Your task to perform on an android device: Turn on the flashlight Image 0: 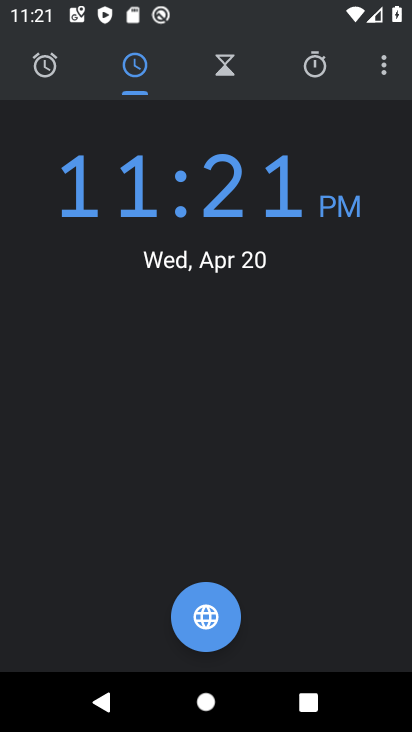
Step 0: press home button
Your task to perform on an android device: Turn on the flashlight Image 1: 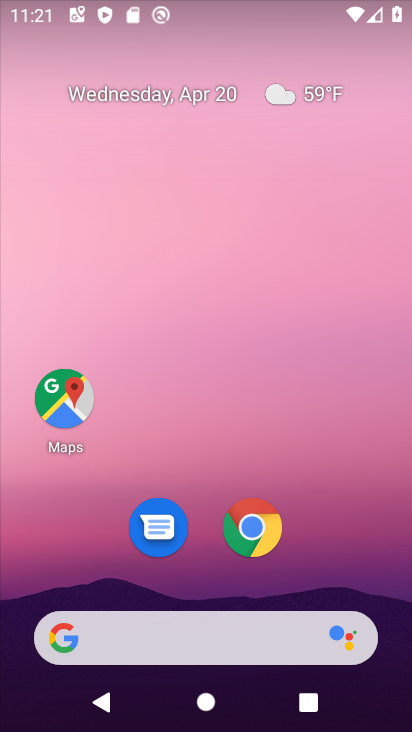
Step 1: drag from (380, 563) to (370, 170)
Your task to perform on an android device: Turn on the flashlight Image 2: 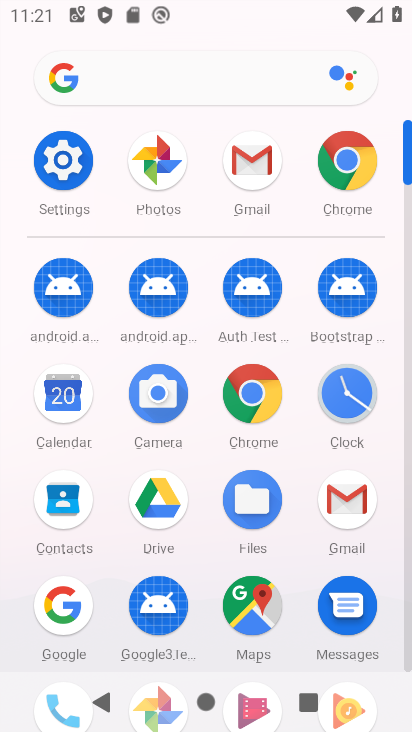
Step 2: click (62, 180)
Your task to perform on an android device: Turn on the flashlight Image 3: 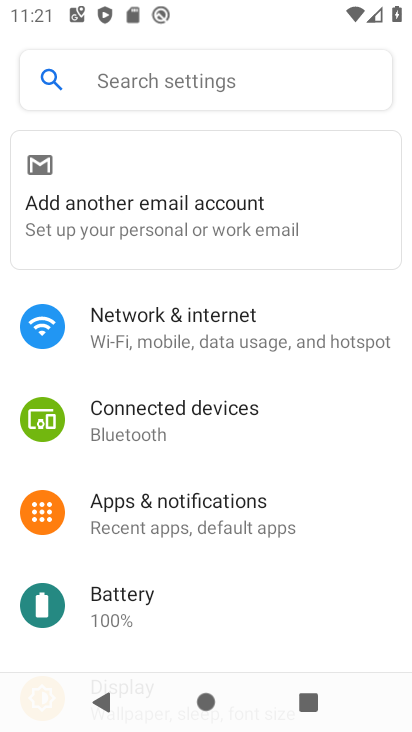
Step 3: click (247, 80)
Your task to perform on an android device: Turn on the flashlight Image 4: 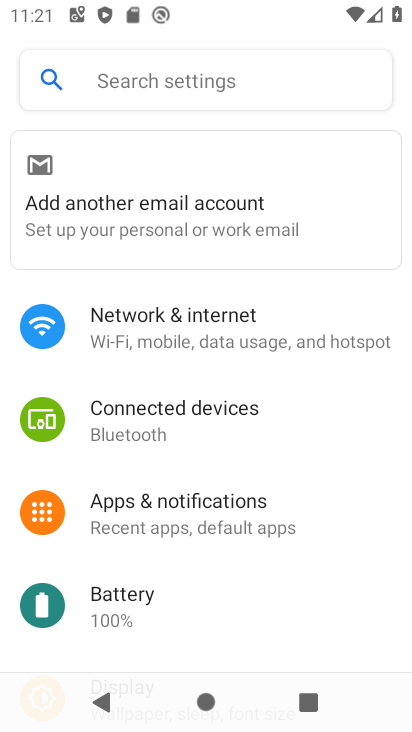
Step 4: type ""
Your task to perform on an android device: Turn on the flashlight Image 5: 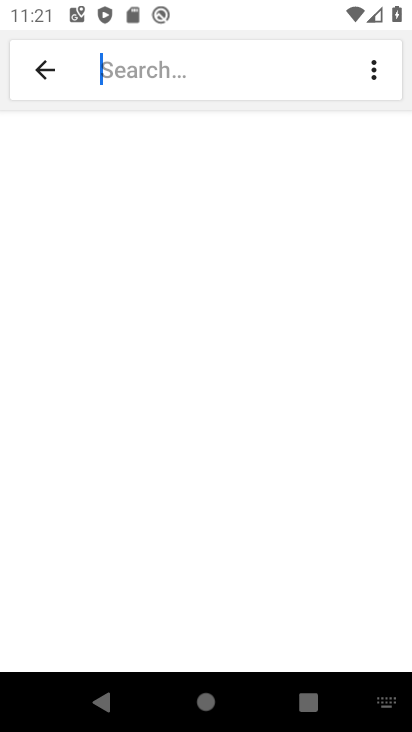
Step 5: type "flashlight"
Your task to perform on an android device: Turn on the flashlight Image 6: 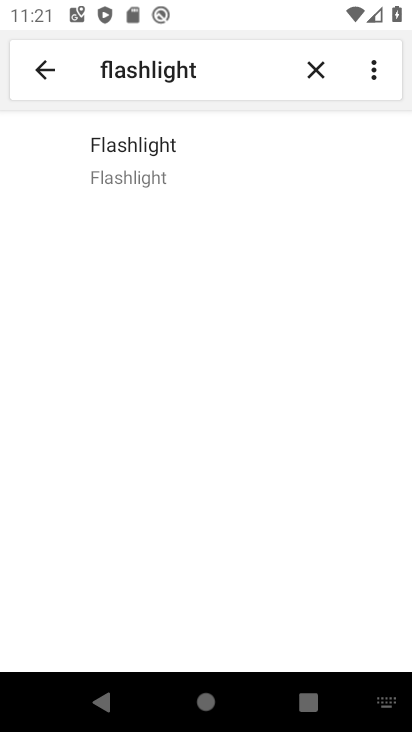
Step 6: click (157, 150)
Your task to perform on an android device: Turn on the flashlight Image 7: 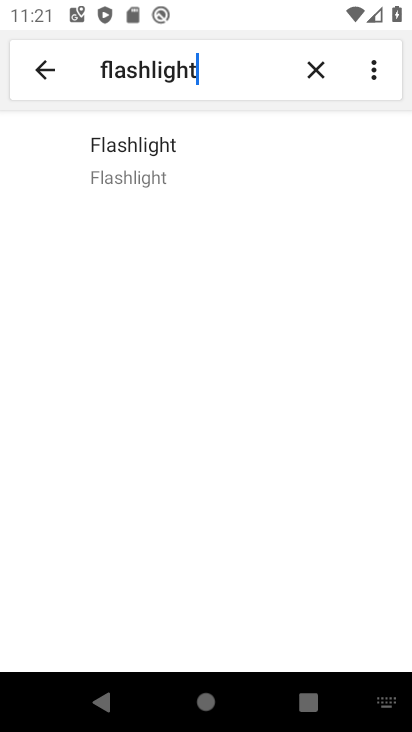
Step 7: task complete